Your task to perform on an android device: delete a single message in the gmail app Image 0: 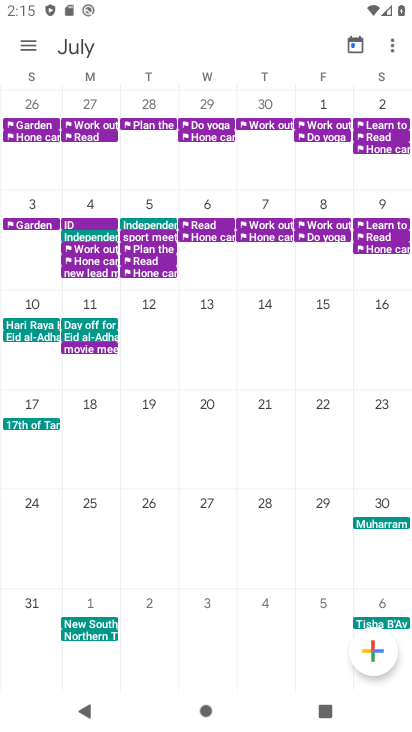
Step 0: press home button
Your task to perform on an android device: delete a single message in the gmail app Image 1: 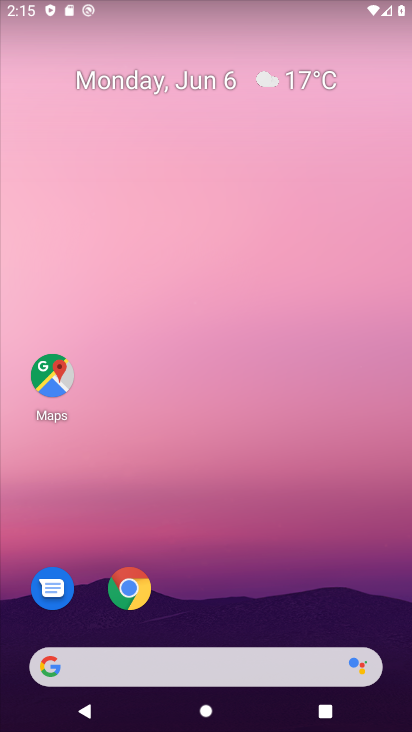
Step 1: drag from (206, 670) to (185, 143)
Your task to perform on an android device: delete a single message in the gmail app Image 2: 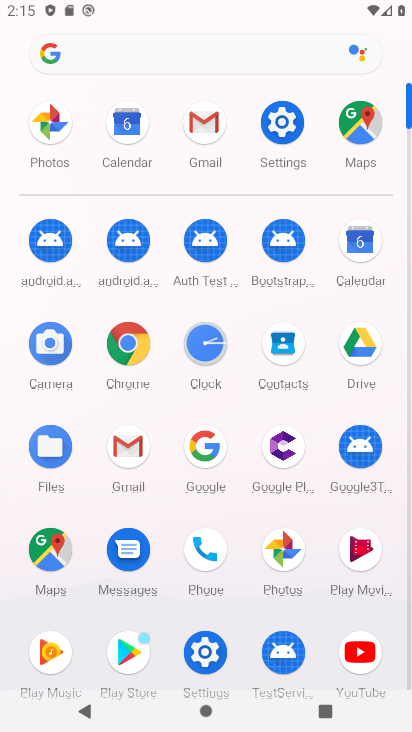
Step 2: click (112, 437)
Your task to perform on an android device: delete a single message in the gmail app Image 3: 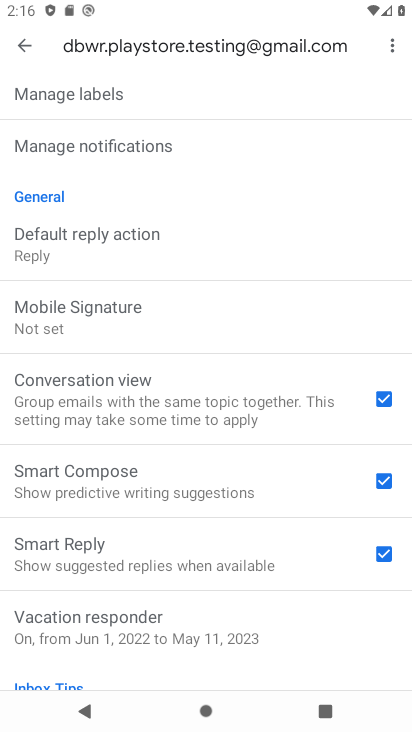
Step 3: click (19, 55)
Your task to perform on an android device: delete a single message in the gmail app Image 4: 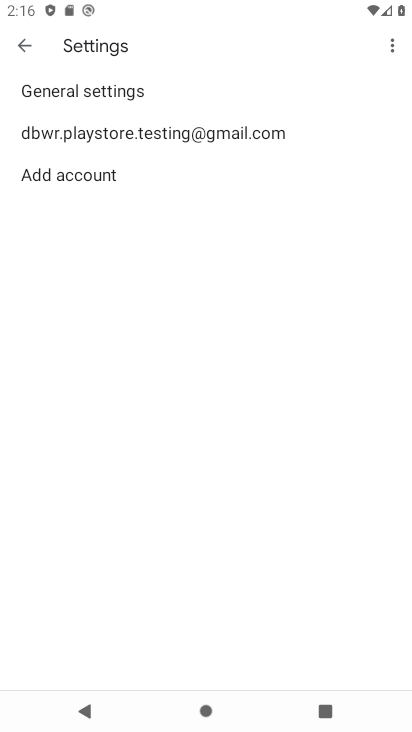
Step 4: click (19, 55)
Your task to perform on an android device: delete a single message in the gmail app Image 5: 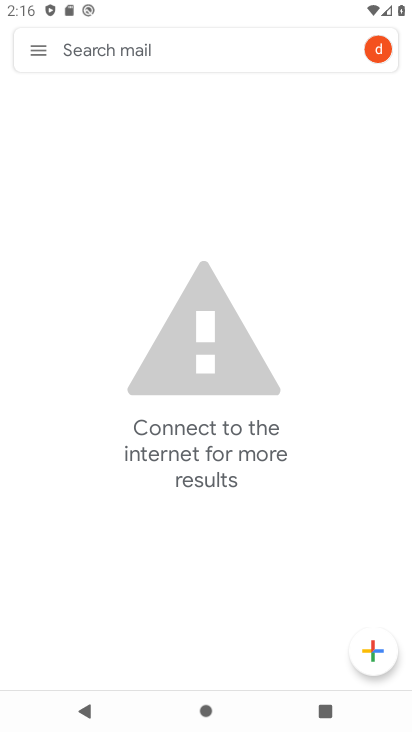
Step 5: click (49, 43)
Your task to perform on an android device: delete a single message in the gmail app Image 6: 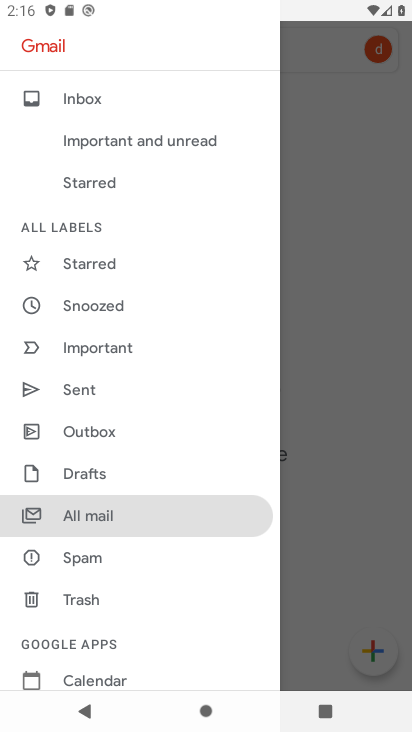
Step 6: click (102, 518)
Your task to perform on an android device: delete a single message in the gmail app Image 7: 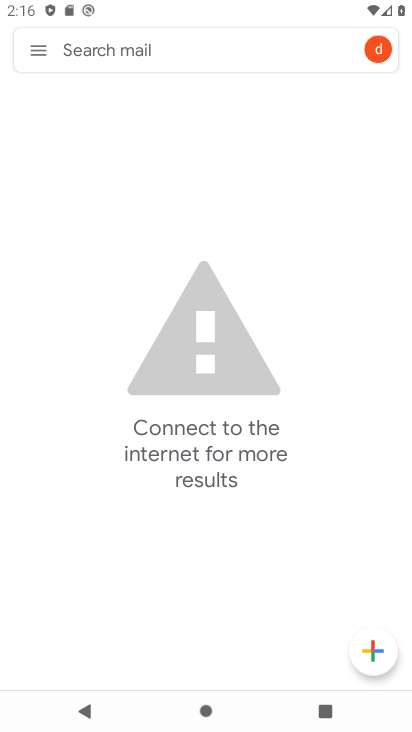
Step 7: task complete